Your task to perform on an android device: Check the settings for the Spotify app Image 0: 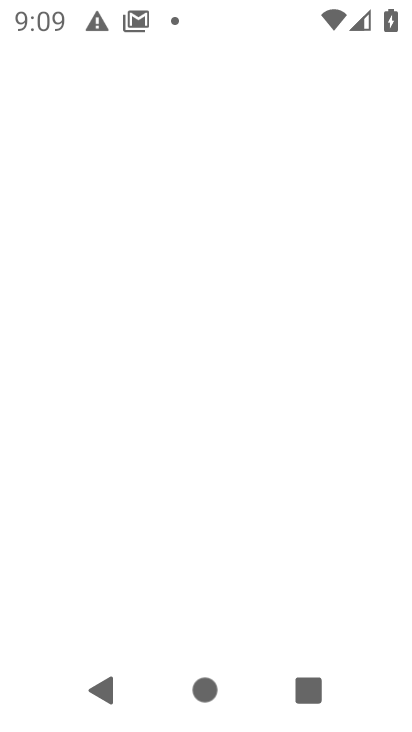
Step 0: press home button
Your task to perform on an android device: Check the settings for the Spotify app Image 1: 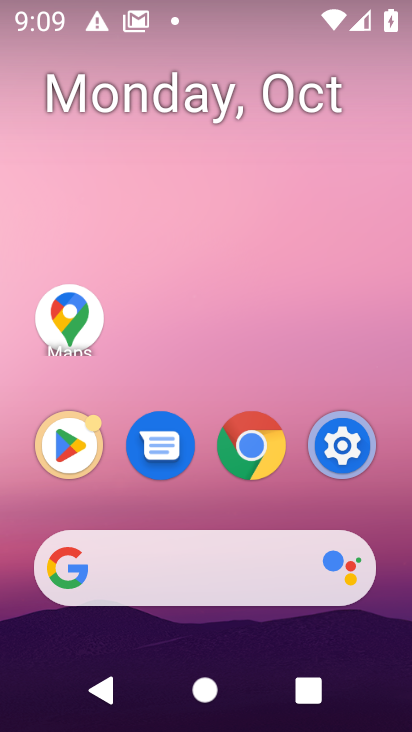
Step 1: task complete